Your task to perform on an android device: star an email in the gmail app Image 0: 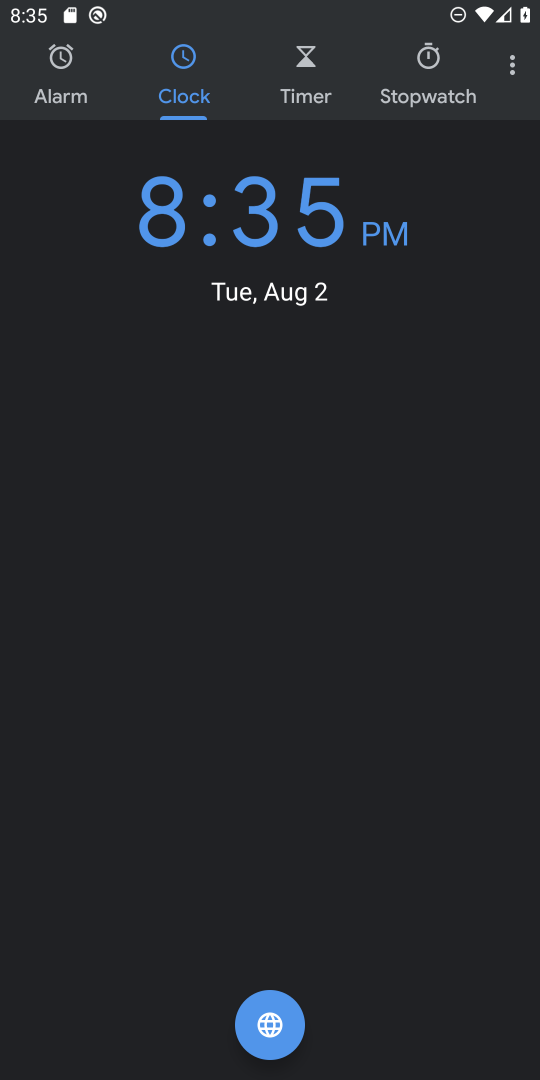
Step 0: press home button
Your task to perform on an android device: star an email in the gmail app Image 1: 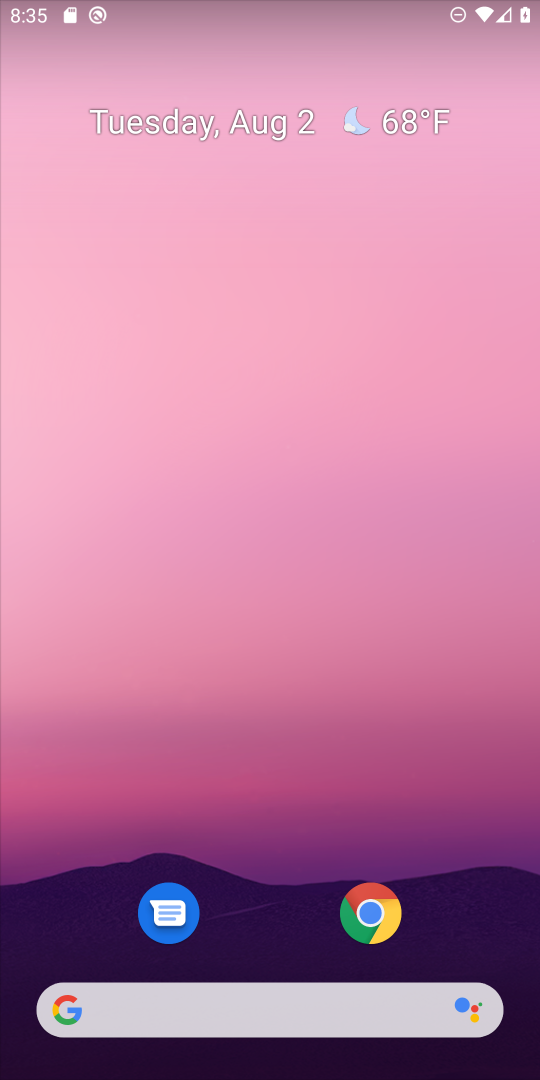
Step 1: drag from (312, 814) to (335, 150)
Your task to perform on an android device: star an email in the gmail app Image 2: 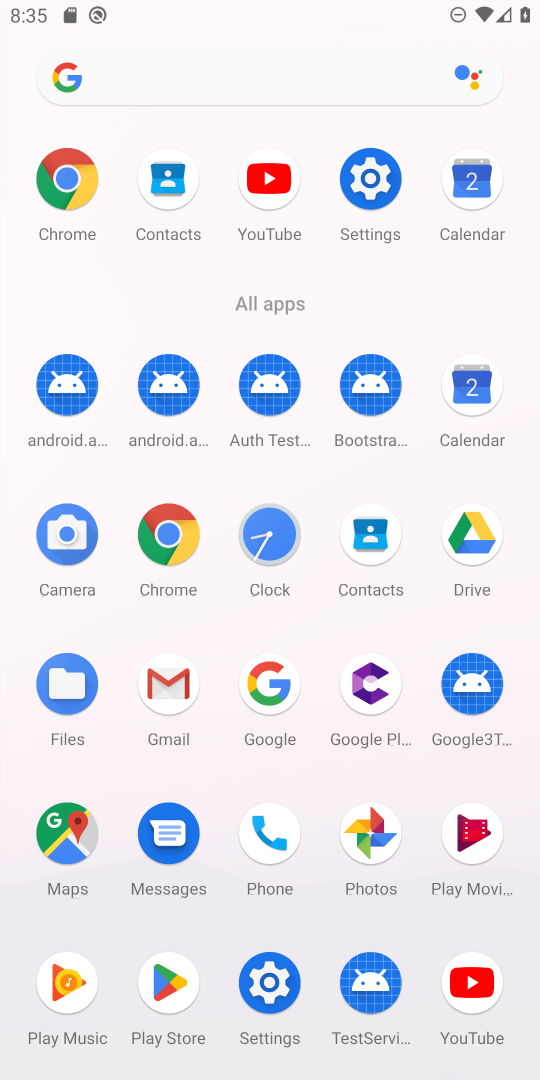
Step 2: click (178, 693)
Your task to perform on an android device: star an email in the gmail app Image 3: 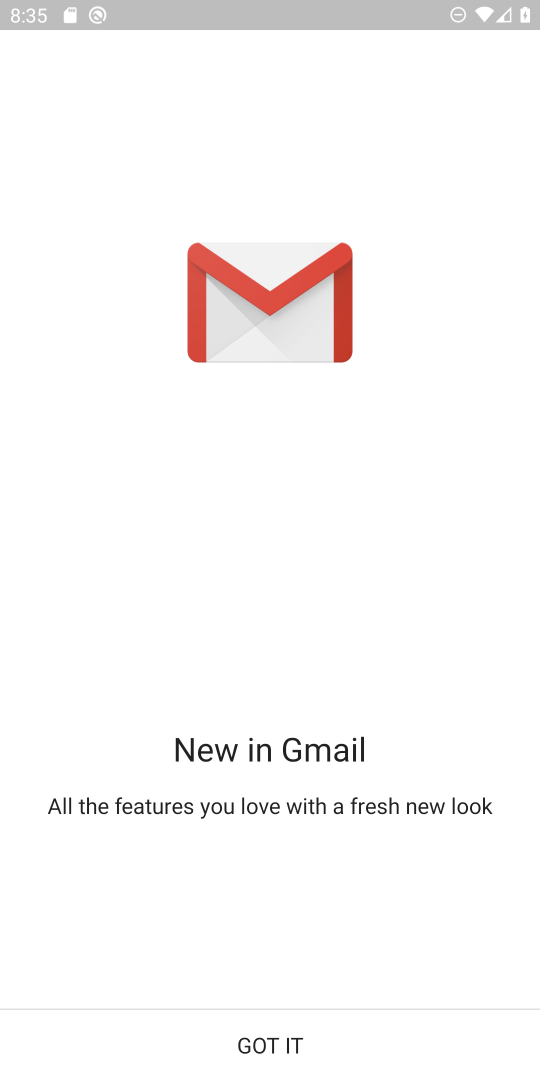
Step 3: click (291, 1049)
Your task to perform on an android device: star an email in the gmail app Image 4: 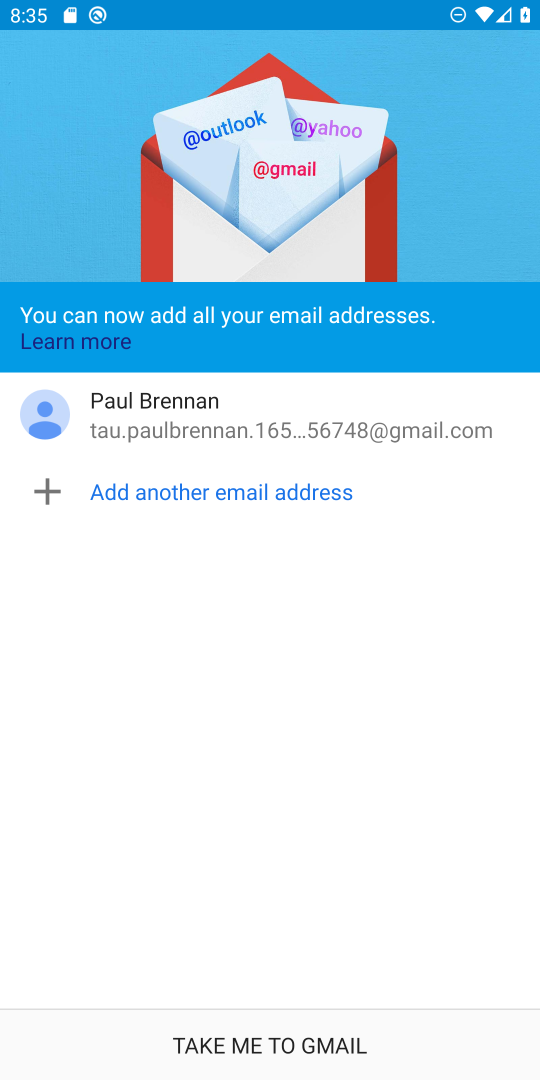
Step 4: click (282, 1036)
Your task to perform on an android device: star an email in the gmail app Image 5: 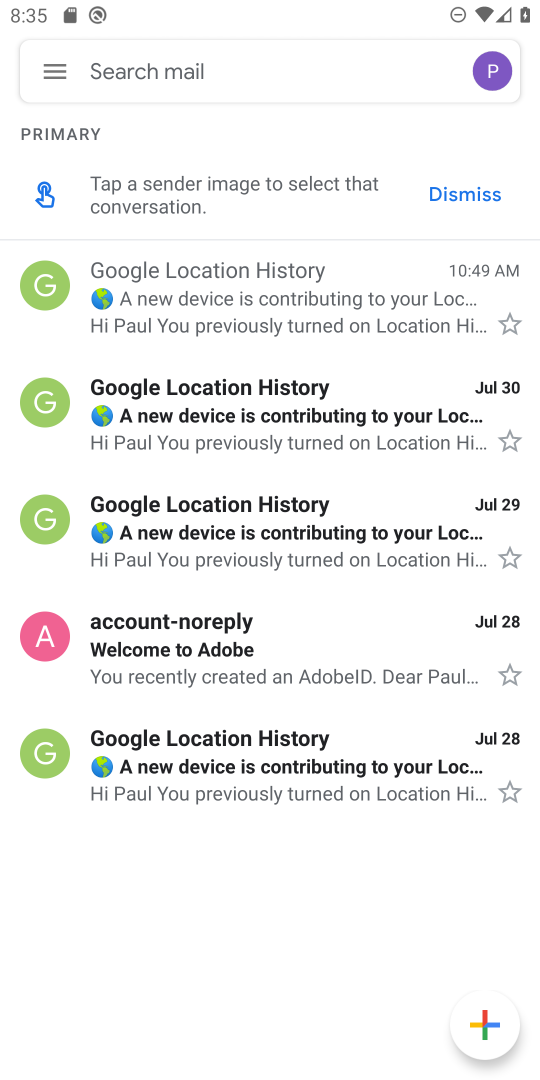
Step 5: click (62, 65)
Your task to perform on an android device: star an email in the gmail app Image 6: 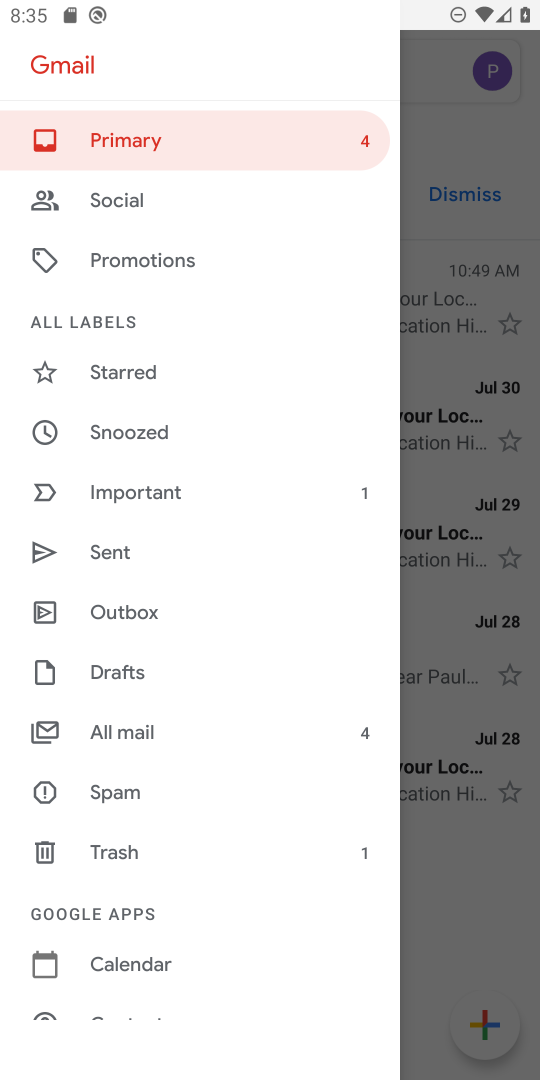
Step 6: click (162, 369)
Your task to perform on an android device: star an email in the gmail app Image 7: 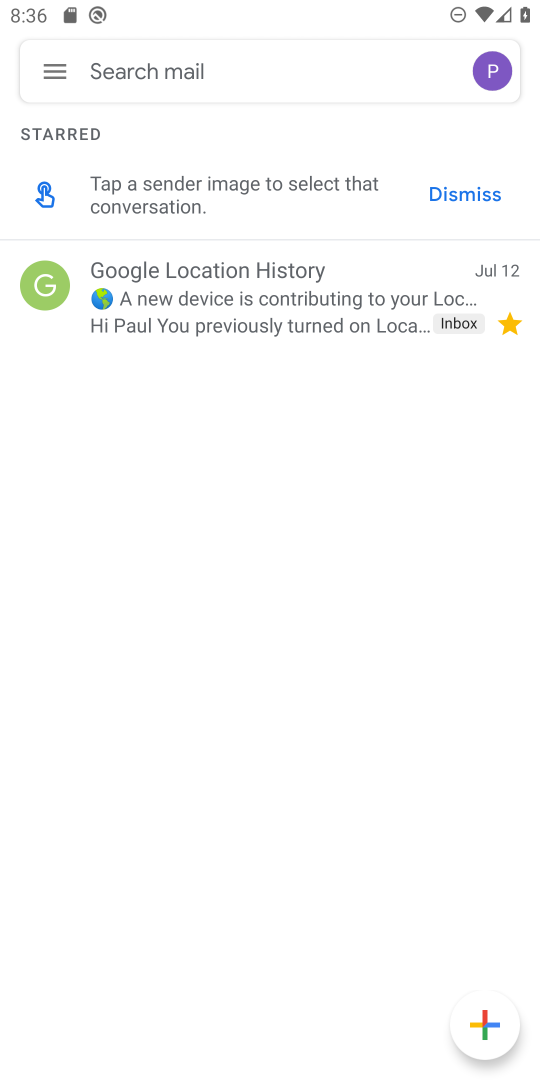
Step 7: task complete